Your task to perform on an android device: Search for Mexican restaurants on Maps Image 0: 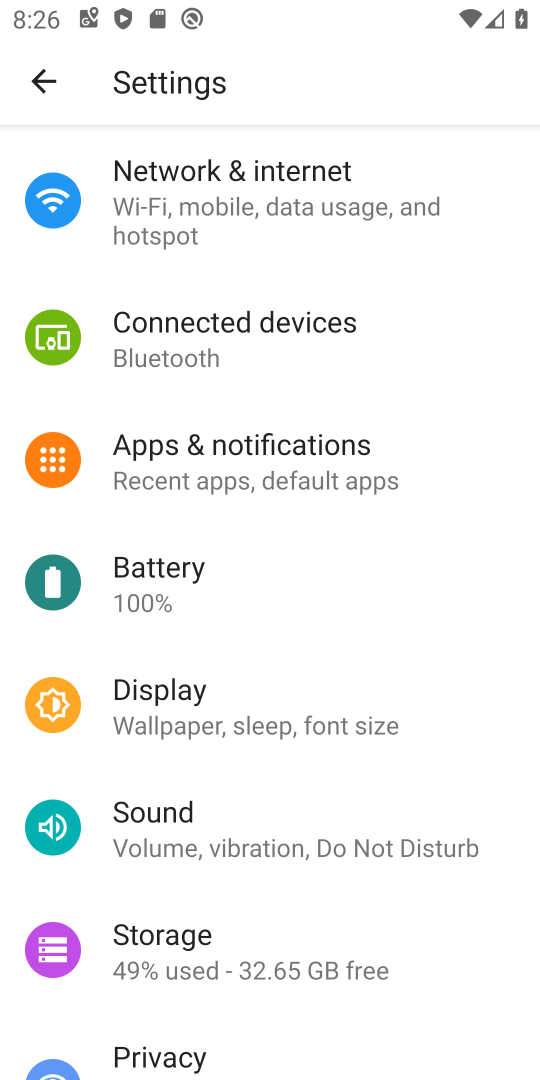
Step 0: press home button
Your task to perform on an android device: Search for Mexican restaurants on Maps Image 1: 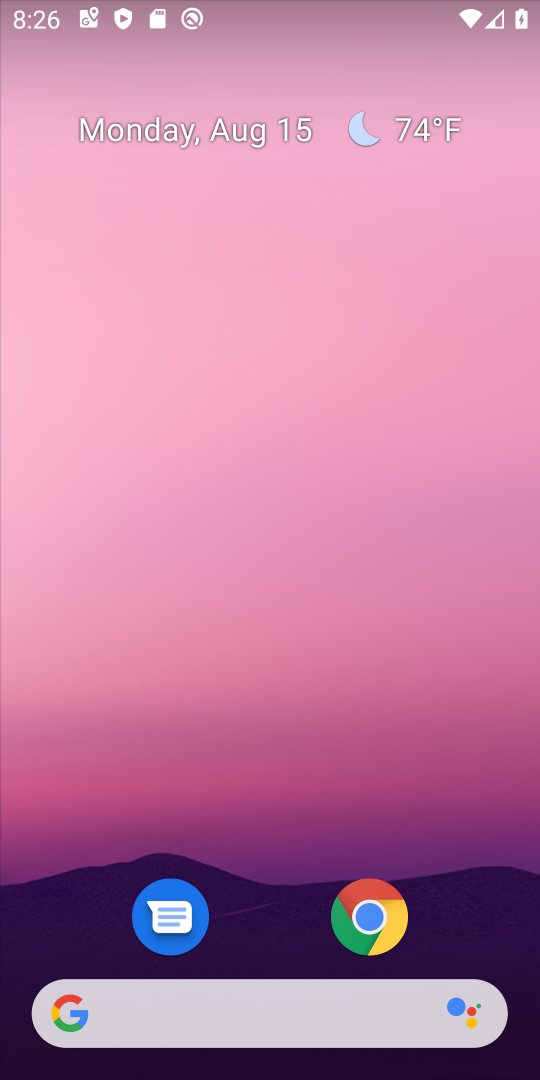
Step 1: drag from (282, 831) to (292, 0)
Your task to perform on an android device: Search for Mexican restaurants on Maps Image 2: 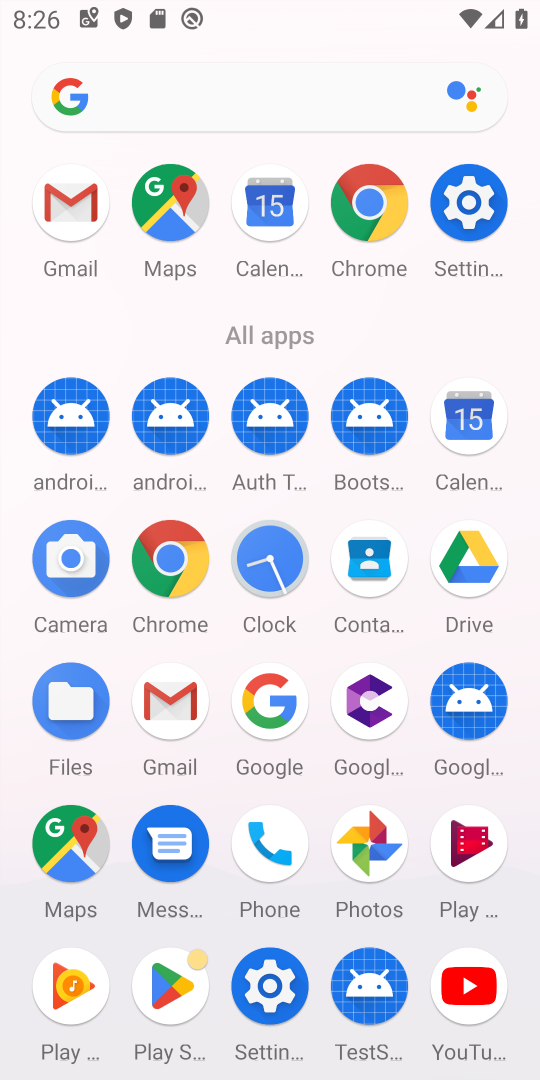
Step 2: click (169, 207)
Your task to perform on an android device: Search for Mexican restaurants on Maps Image 3: 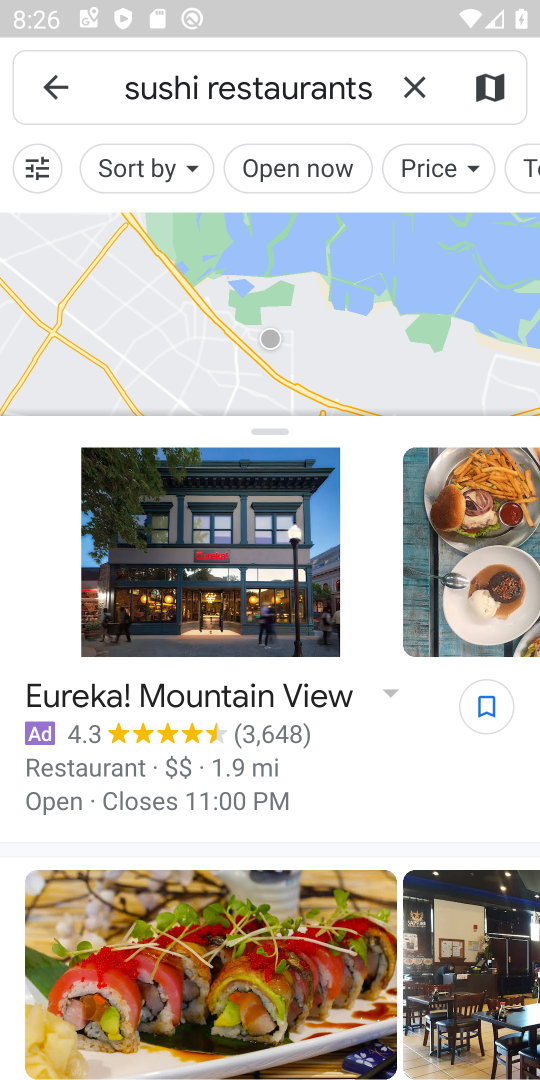
Step 3: click (410, 86)
Your task to perform on an android device: Search for Mexican restaurants on Maps Image 4: 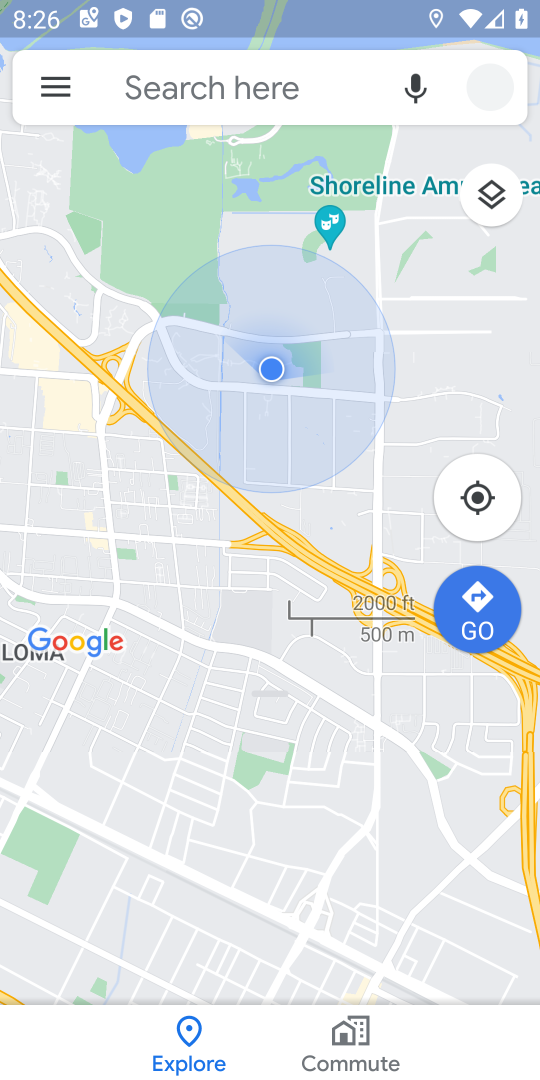
Step 4: click (280, 88)
Your task to perform on an android device: Search for Mexican restaurants on Maps Image 5: 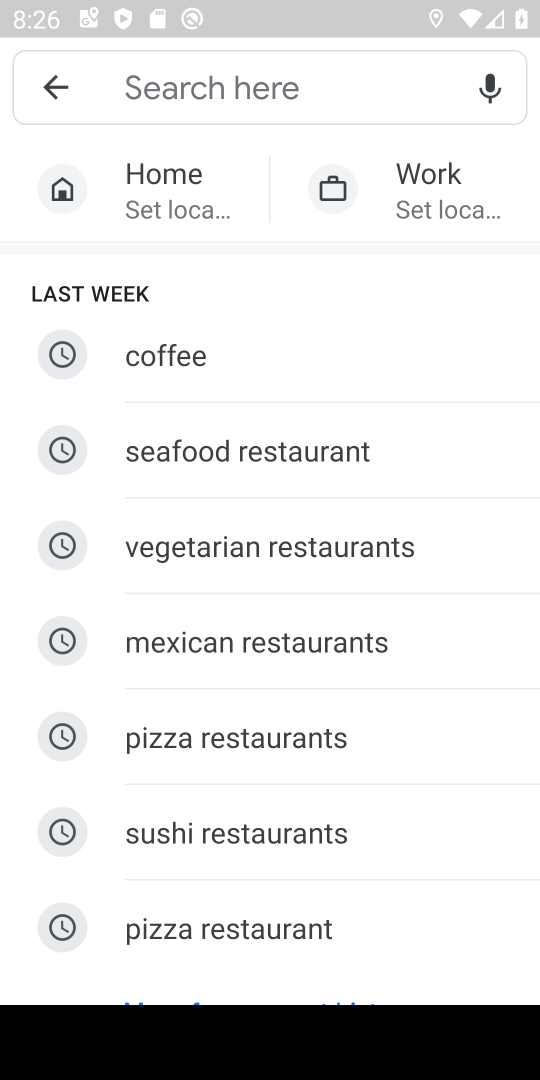
Step 5: click (305, 639)
Your task to perform on an android device: Search for Mexican restaurants on Maps Image 6: 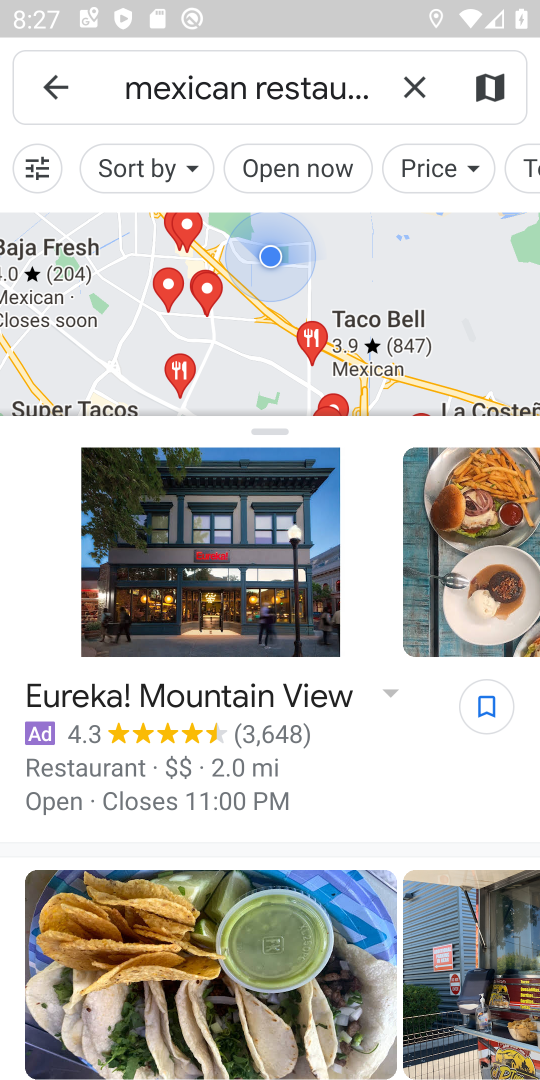
Step 6: task complete